Your task to perform on an android device: Add usb-b to the cart on ebay, then select checkout. Image 0: 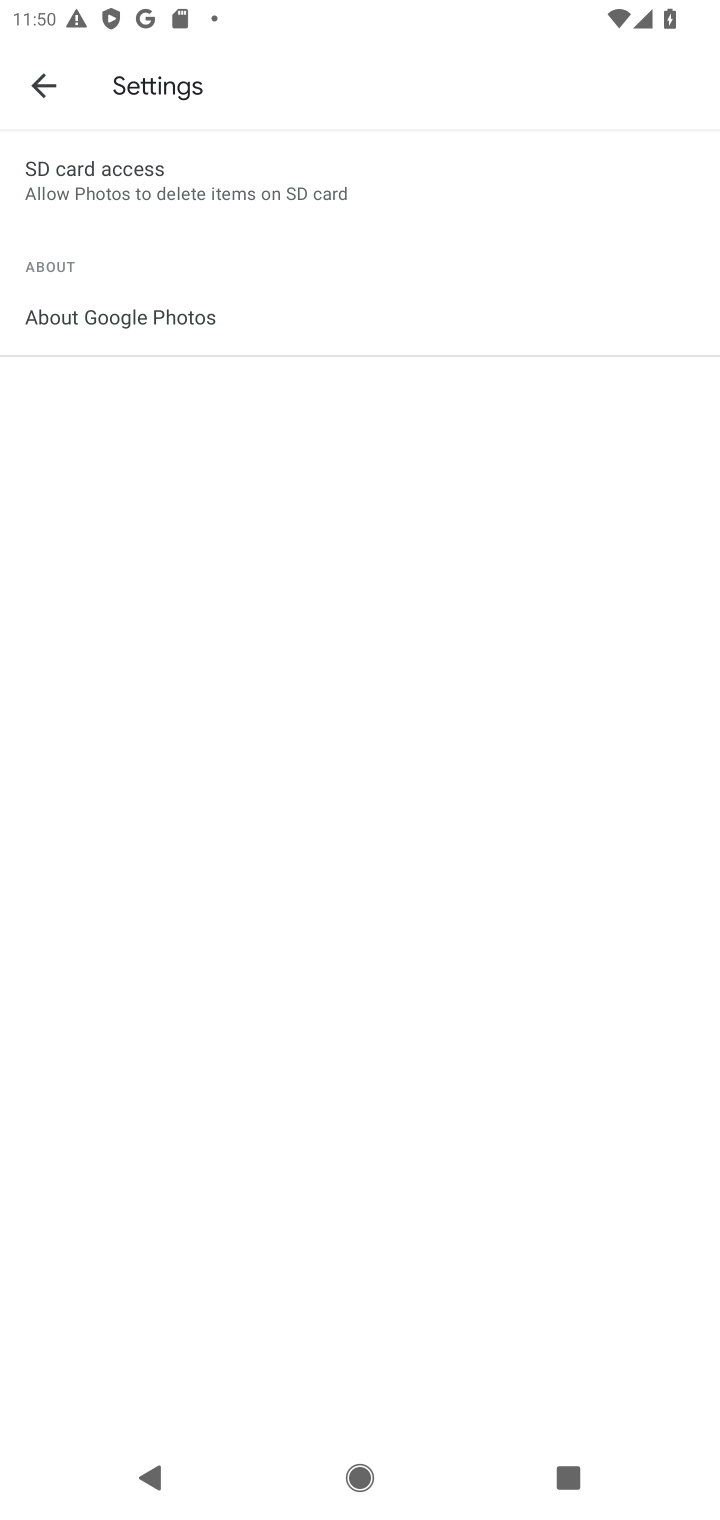
Step 0: task complete